Your task to perform on an android device: choose inbox layout in the gmail app Image 0: 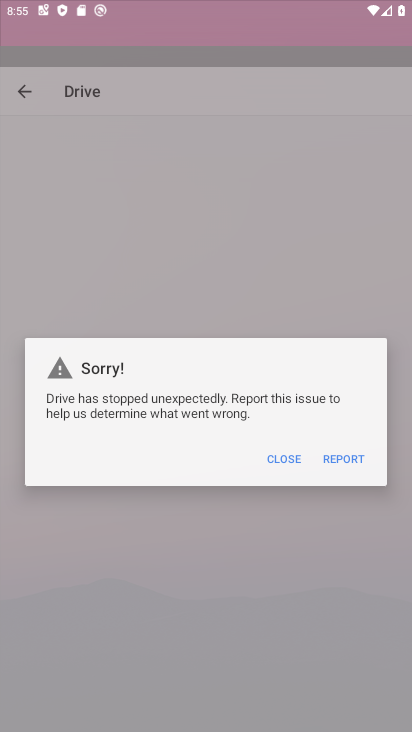
Step 0: drag from (342, 609) to (344, 392)
Your task to perform on an android device: choose inbox layout in the gmail app Image 1: 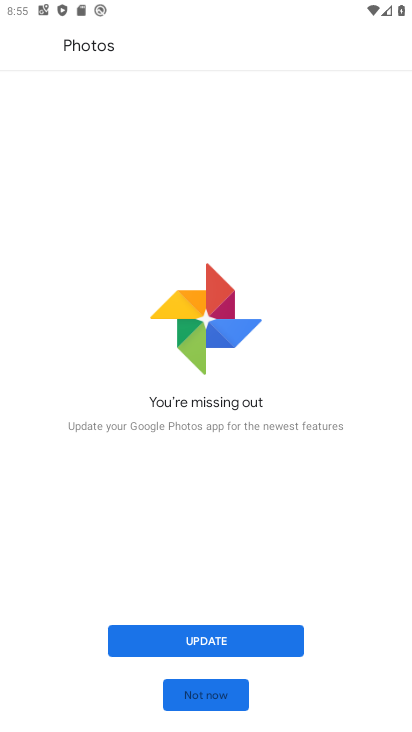
Step 1: press home button
Your task to perform on an android device: choose inbox layout in the gmail app Image 2: 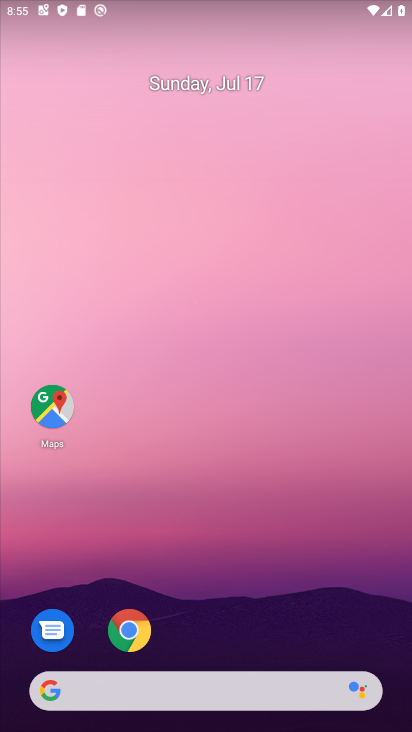
Step 2: drag from (356, 607) to (401, 57)
Your task to perform on an android device: choose inbox layout in the gmail app Image 3: 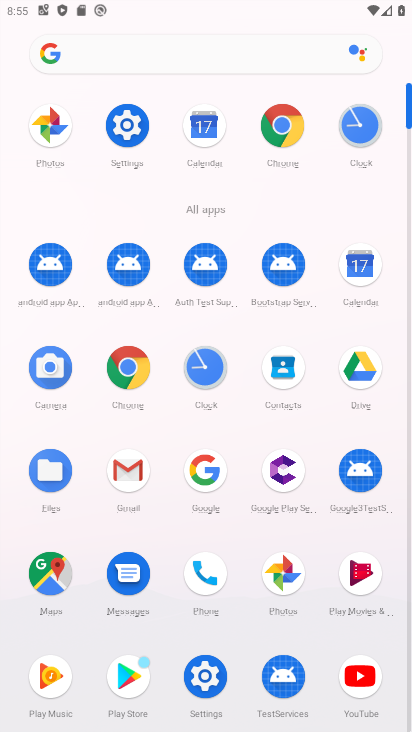
Step 3: click (137, 468)
Your task to perform on an android device: choose inbox layout in the gmail app Image 4: 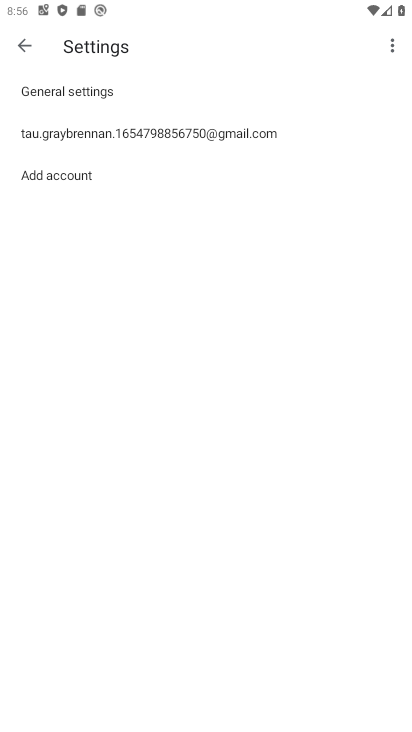
Step 4: click (157, 140)
Your task to perform on an android device: choose inbox layout in the gmail app Image 5: 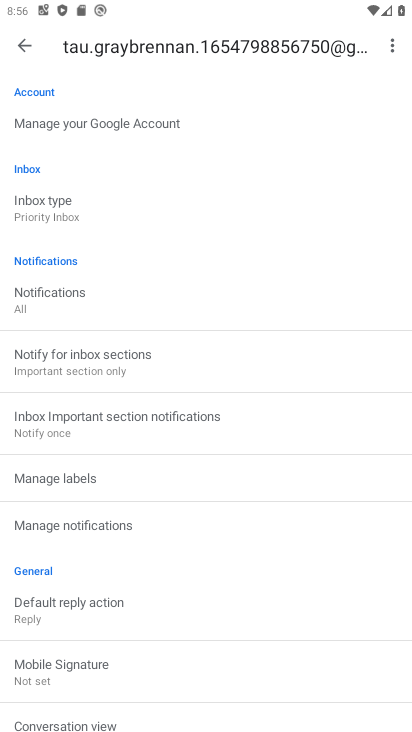
Step 5: drag from (267, 536) to (293, 462)
Your task to perform on an android device: choose inbox layout in the gmail app Image 6: 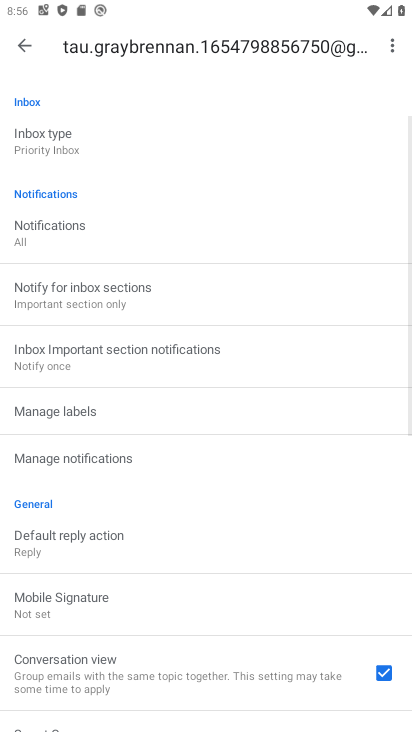
Step 6: drag from (302, 567) to (315, 499)
Your task to perform on an android device: choose inbox layout in the gmail app Image 7: 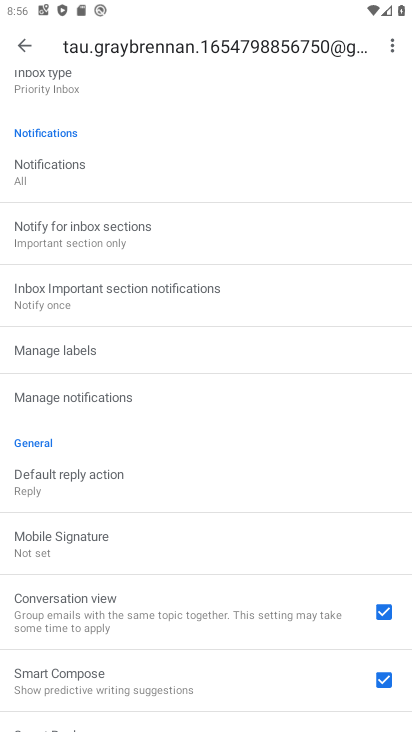
Step 7: drag from (298, 559) to (312, 477)
Your task to perform on an android device: choose inbox layout in the gmail app Image 8: 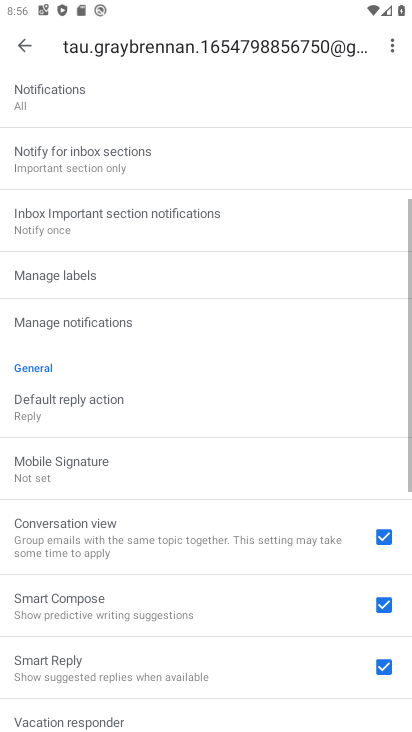
Step 8: drag from (312, 544) to (313, 451)
Your task to perform on an android device: choose inbox layout in the gmail app Image 9: 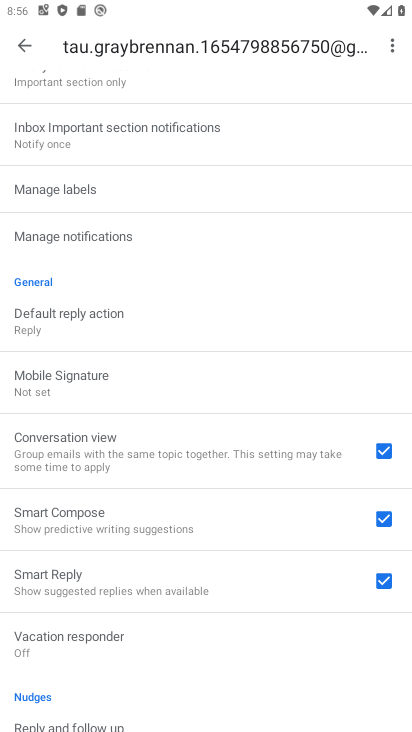
Step 9: drag from (307, 570) to (309, 472)
Your task to perform on an android device: choose inbox layout in the gmail app Image 10: 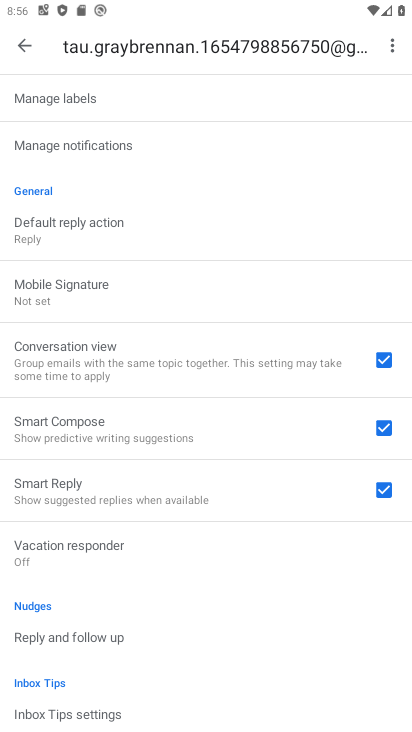
Step 10: drag from (281, 585) to (281, 443)
Your task to perform on an android device: choose inbox layout in the gmail app Image 11: 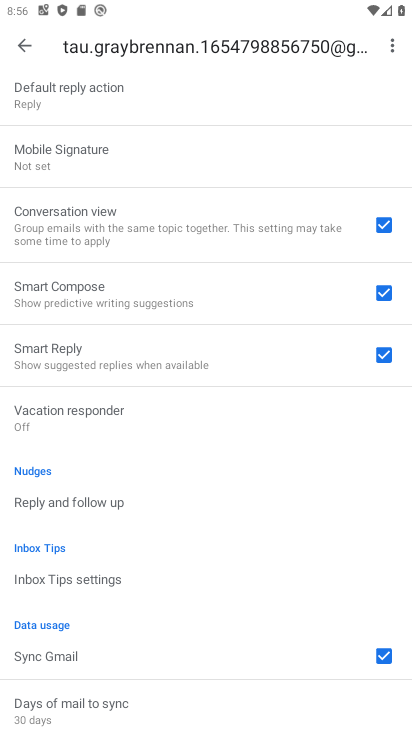
Step 11: drag from (292, 312) to (294, 412)
Your task to perform on an android device: choose inbox layout in the gmail app Image 12: 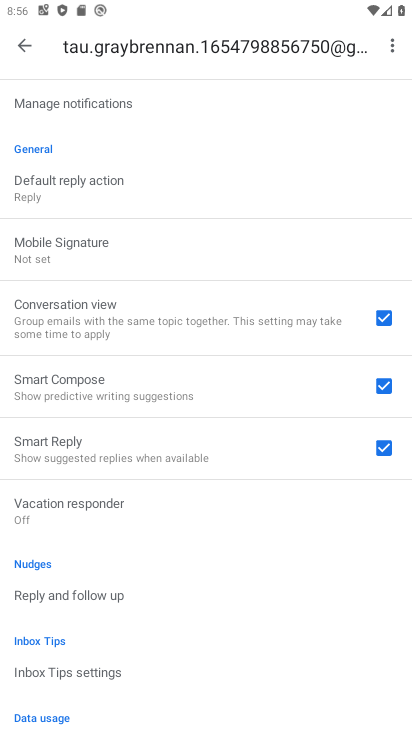
Step 12: drag from (294, 312) to (299, 389)
Your task to perform on an android device: choose inbox layout in the gmail app Image 13: 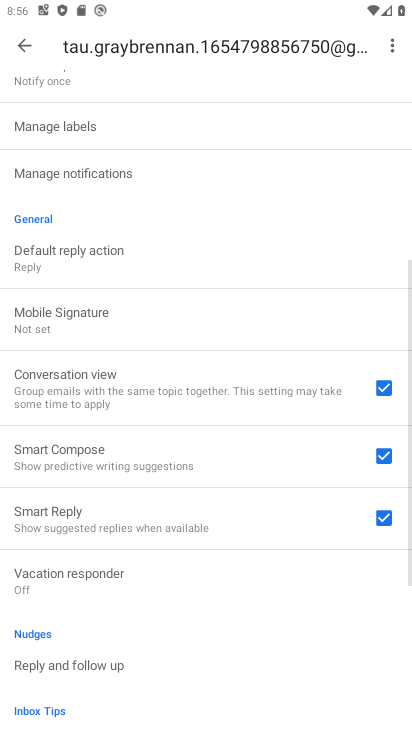
Step 13: drag from (297, 284) to (302, 378)
Your task to perform on an android device: choose inbox layout in the gmail app Image 14: 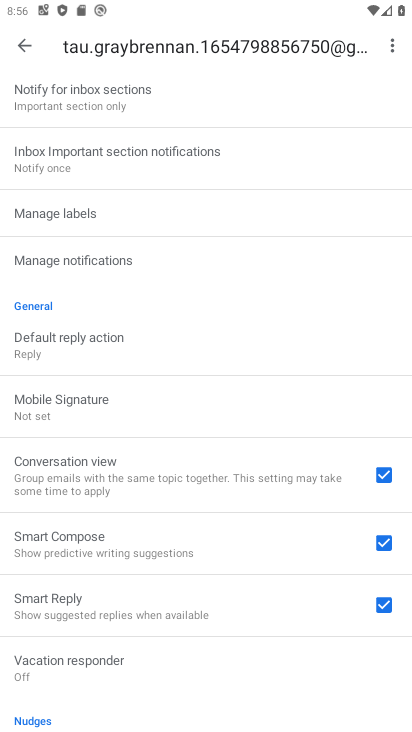
Step 14: drag from (302, 256) to (303, 335)
Your task to perform on an android device: choose inbox layout in the gmail app Image 15: 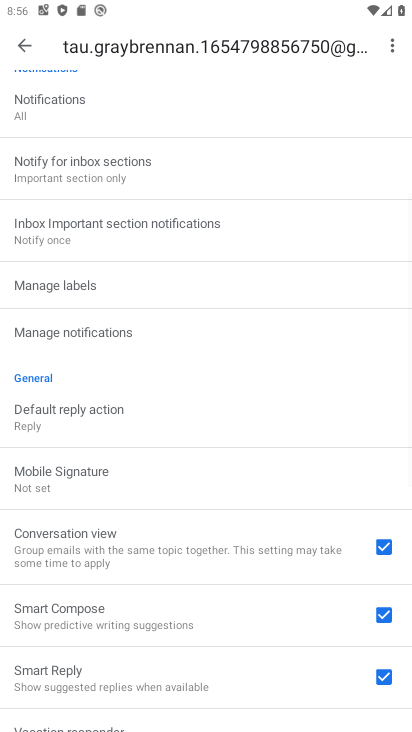
Step 15: drag from (295, 230) to (292, 338)
Your task to perform on an android device: choose inbox layout in the gmail app Image 16: 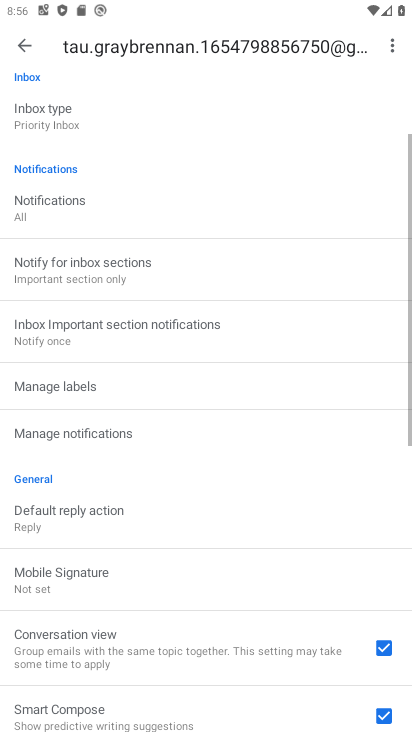
Step 16: drag from (286, 215) to (282, 362)
Your task to perform on an android device: choose inbox layout in the gmail app Image 17: 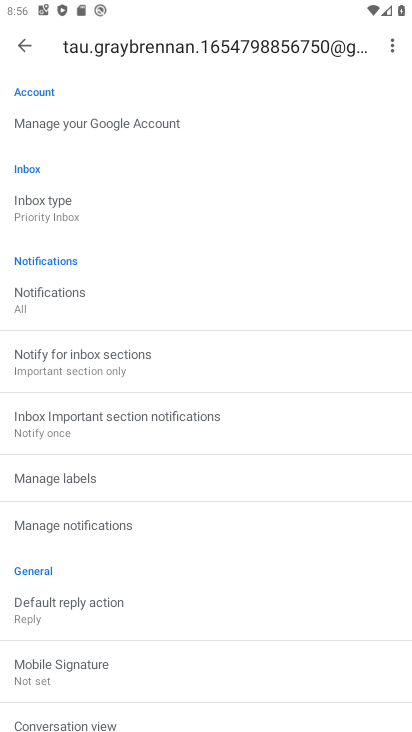
Step 17: click (103, 217)
Your task to perform on an android device: choose inbox layout in the gmail app Image 18: 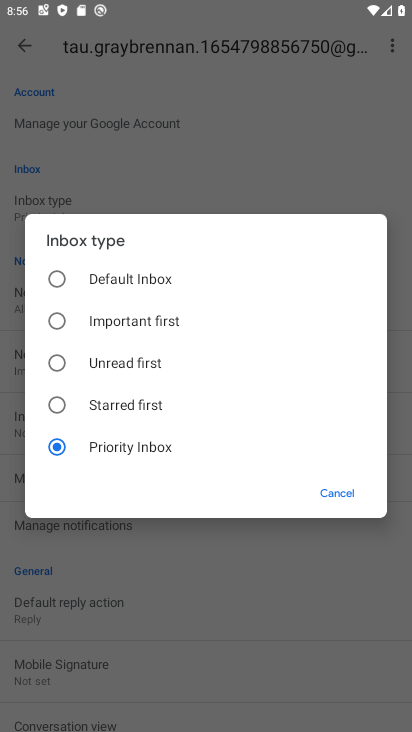
Step 18: click (119, 286)
Your task to perform on an android device: choose inbox layout in the gmail app Image 19: 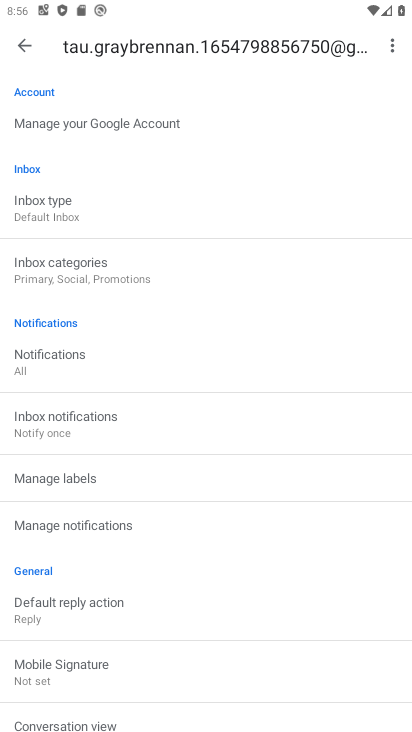
Step 19: task complete